Your task to perform on an android device: turn off wifi Image 0: 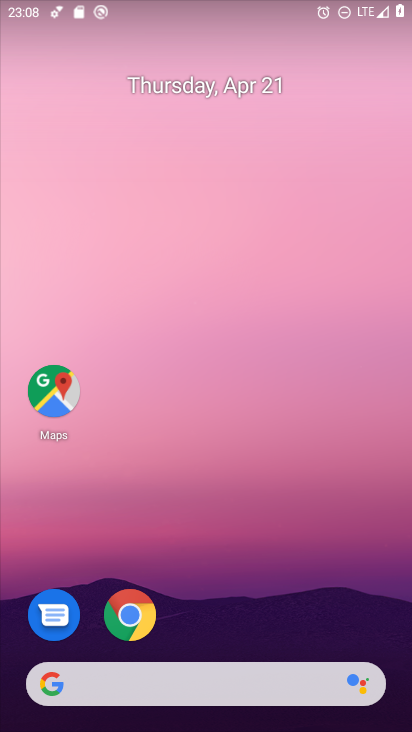
Step 0: drag from (215, 9) to (236, 508)
Your task to perform on an android device: turn off wifi Image 1: 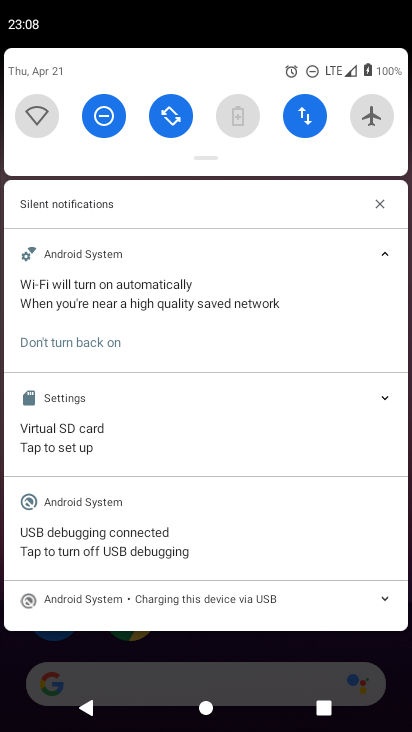
Step 1: task complete